Your task to perform on an android device: Check the weather Image 0: 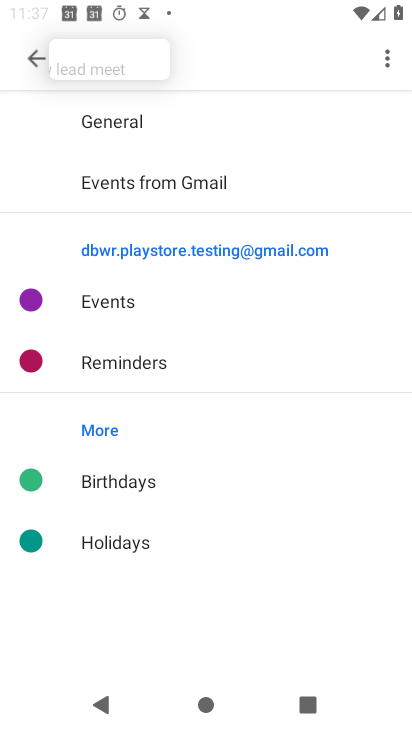
Step 0: press home button
Your task to perform on an android device: Check the weather Image 1: 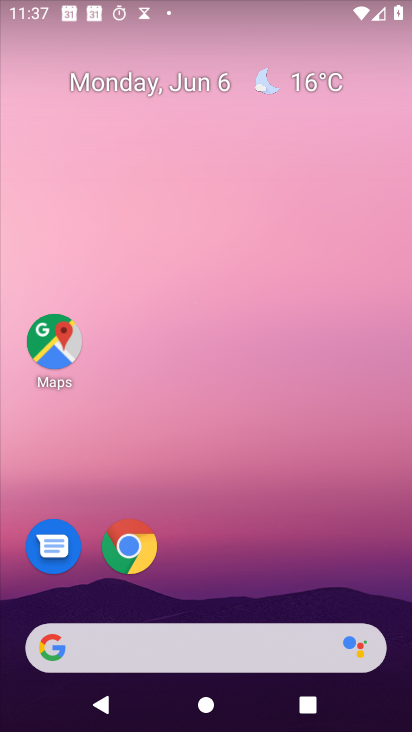
Step 1: click (285, 80)
Your task to perform on an android device: Check the weather Image 2: 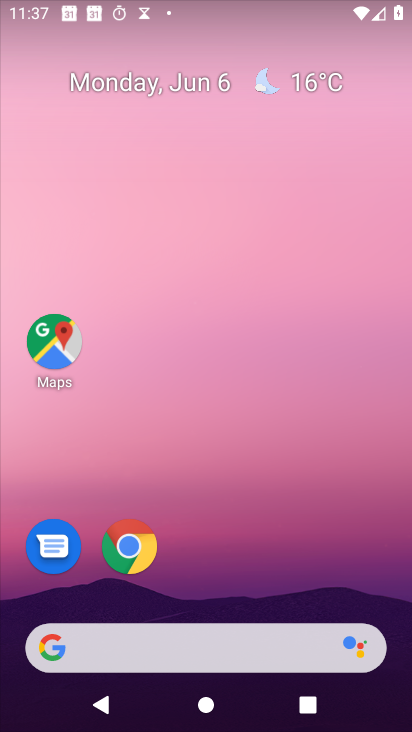
Step 2: click (330, 83)
Your task to perform on an android device: Check the weather Image 3: 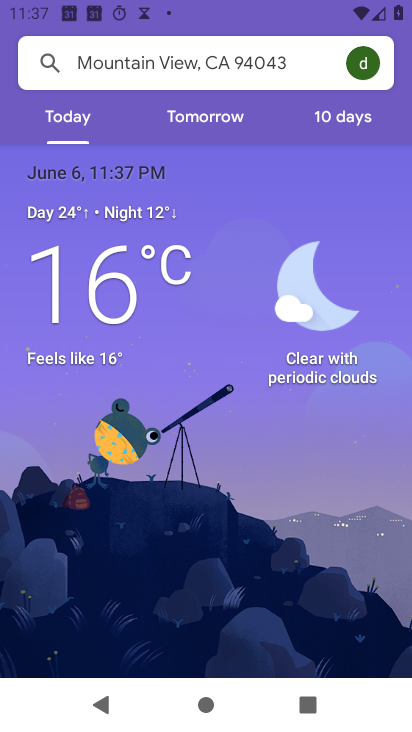
Step 3: task complete